Your task to perform on an android device: uninstall "DoorDash - Food Delivery" Image 0: 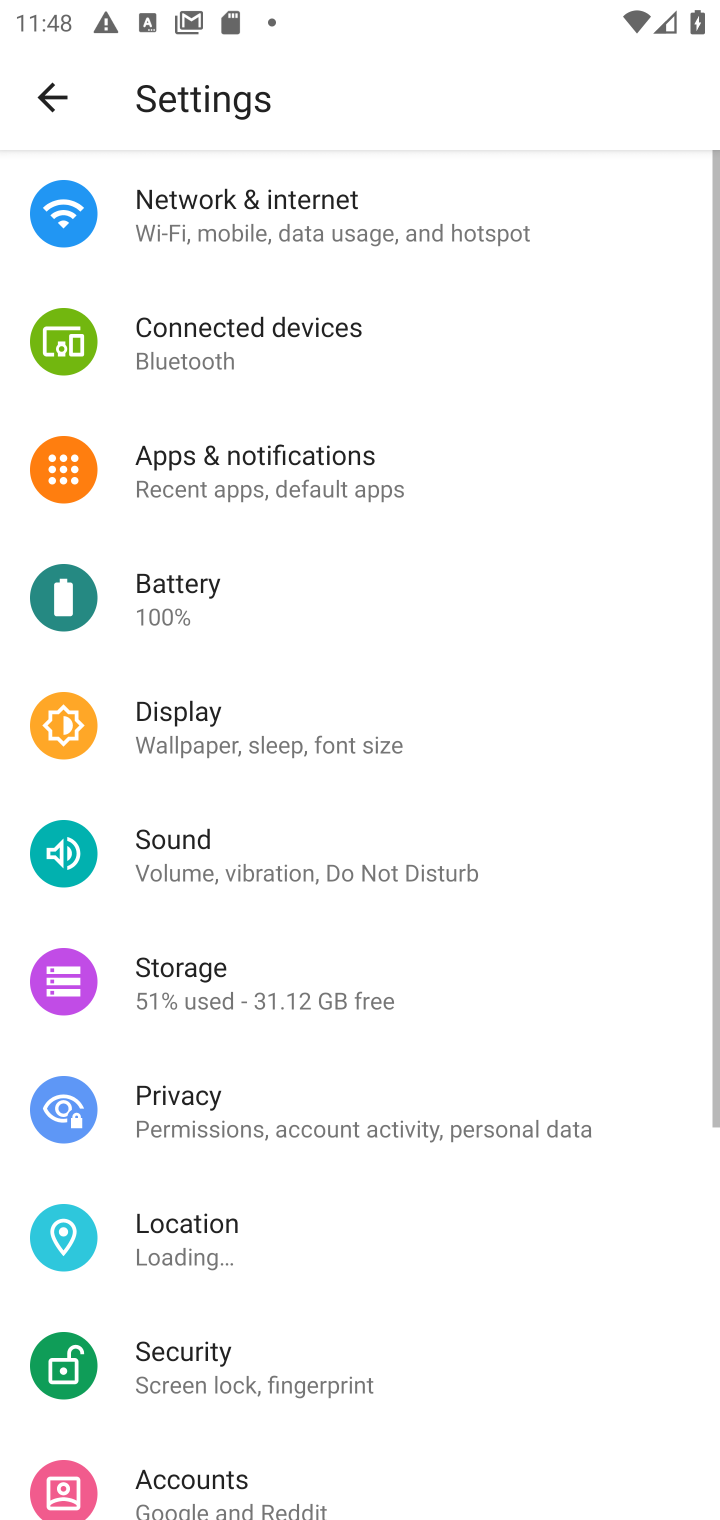
Step 0: click (570, 78)
Your task to perform on an android device: uninstall "DoorDash - Food Delivery" Image 1: 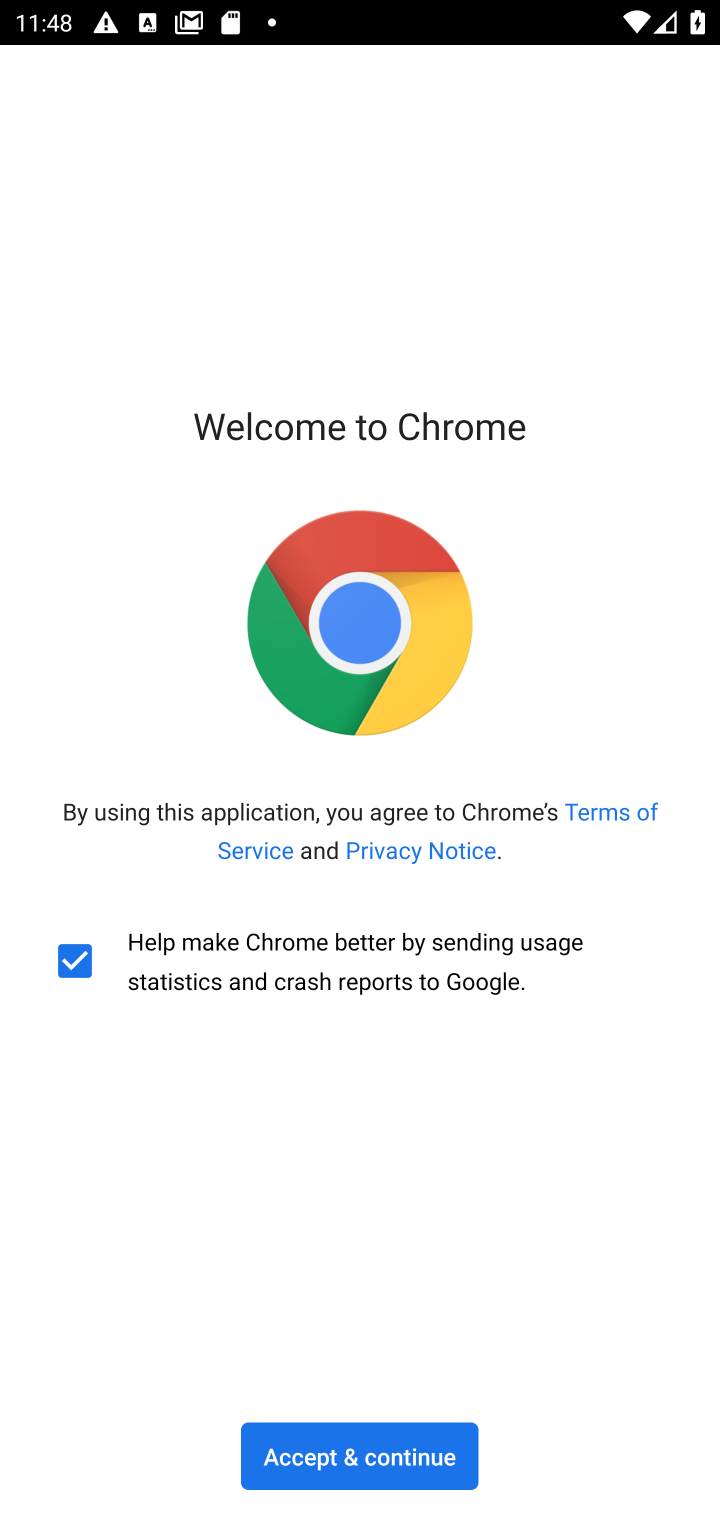
Step 1: press home button
Your task to perform on an android device: uninstall "DoorDash - Food Delivery" Image 2: 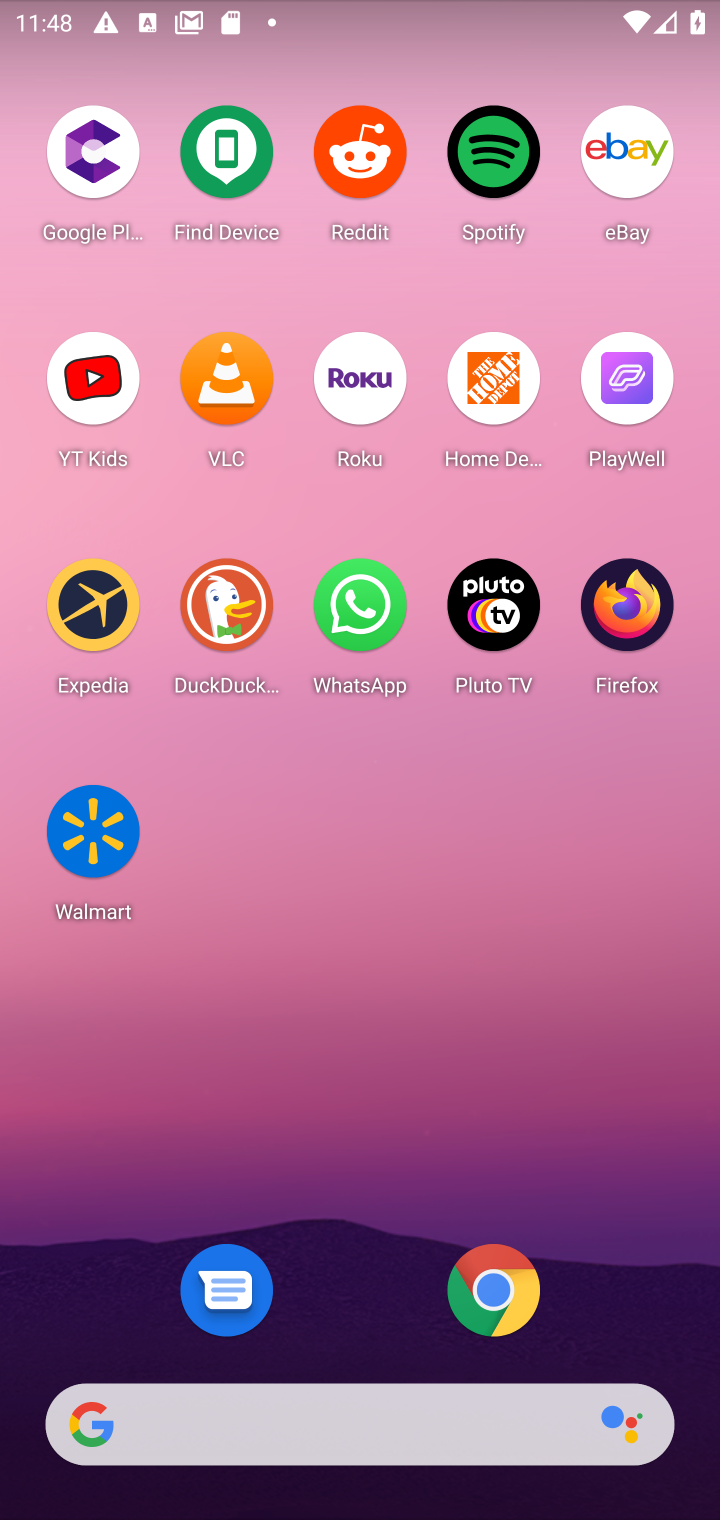
Step 2: drag from (344, 1341) to (315, 94)
Your task to perform on an android device: uninstall "DoorDash - Food Delivery" Image 3: 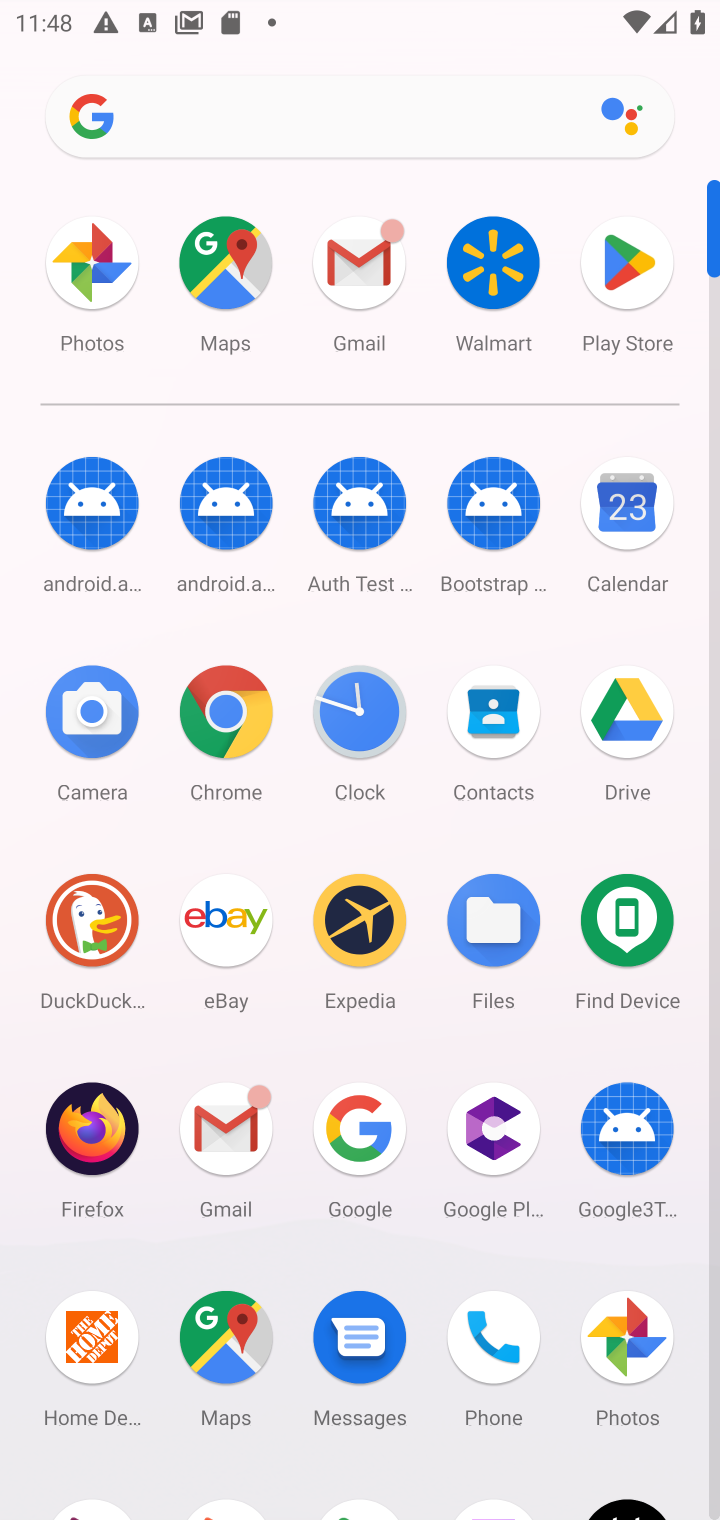
Step 3: click (624, 259)
Your task to perform on an android device: uninstall "DoorDash - Food Delivery" Image 4: 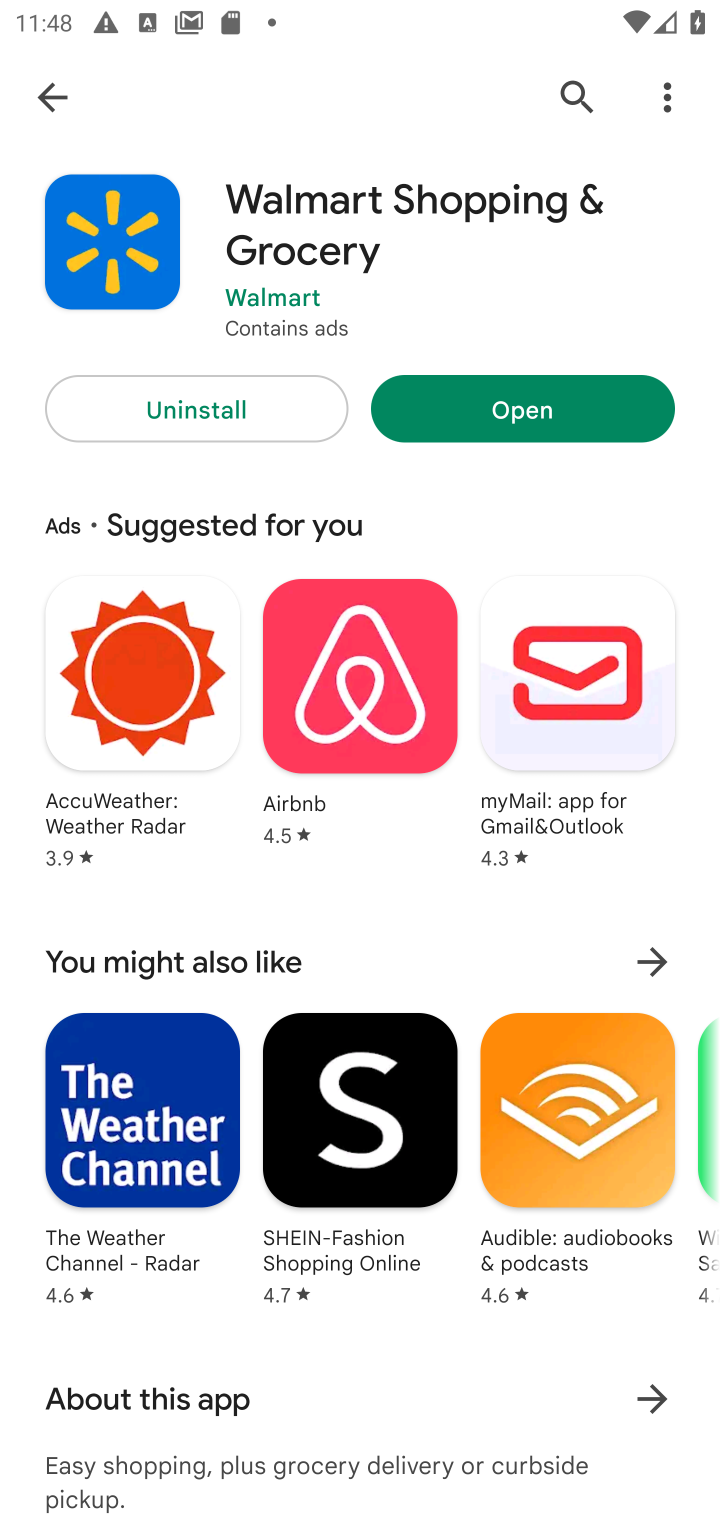
Step 4: click (563, 83)
Your task to perform on an android device: uninstall "DoorDash - Food Delivery" Image 5: 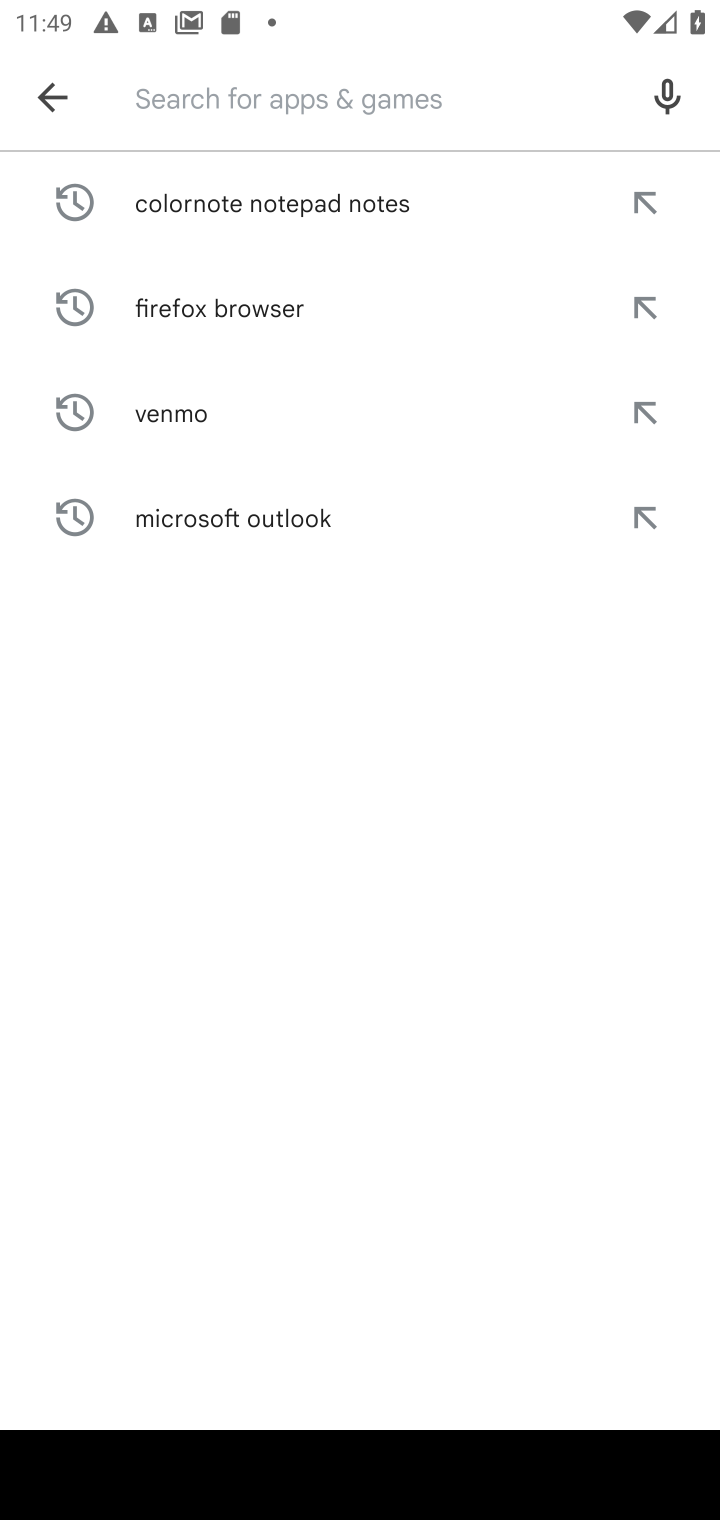
Step 5: type "DoorDash - Food Delivery"
Your task to perform on an android device: uninstall "DoorDash - Food Delivery" Image 6: 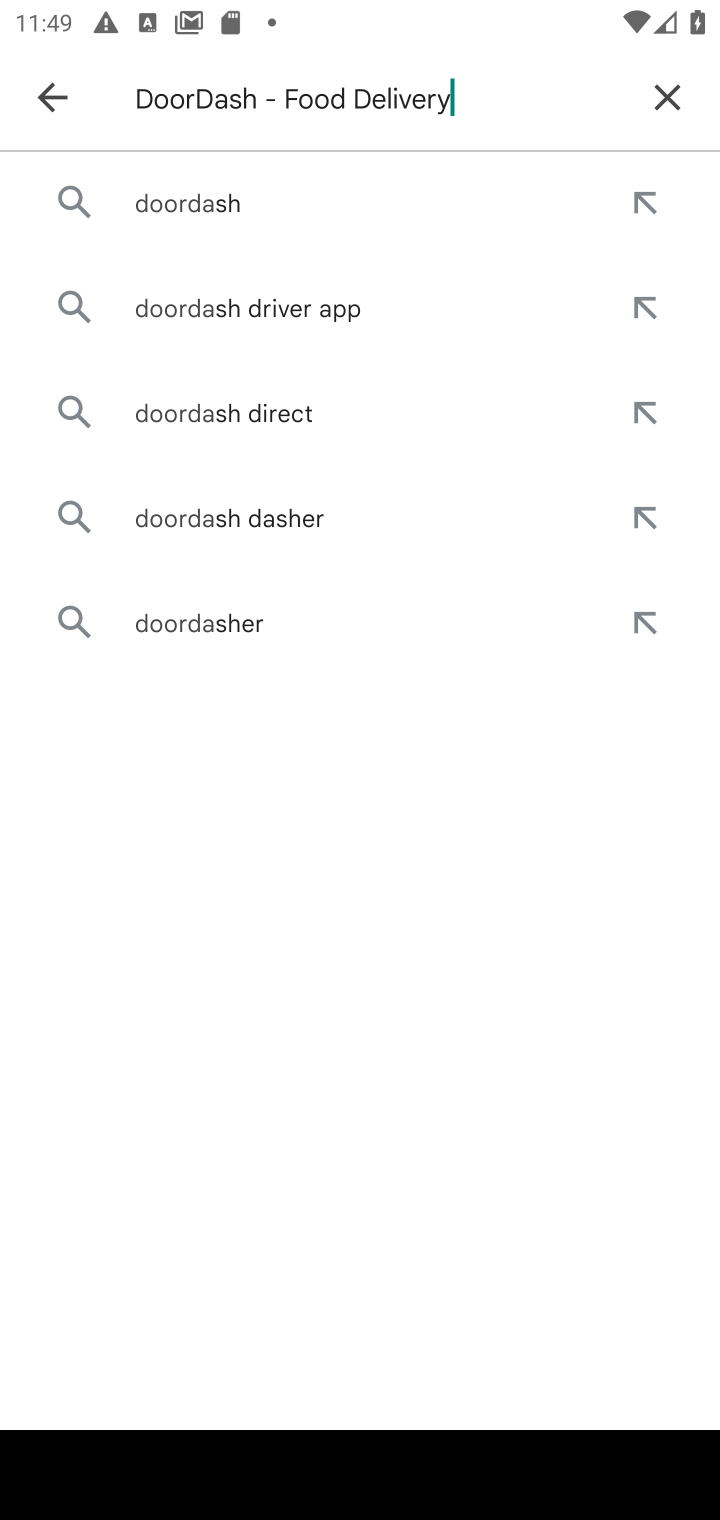
Step 6: type ""
Your task to perform on an android device: uninstall "DoorDash - Food Delivery" Image 7: 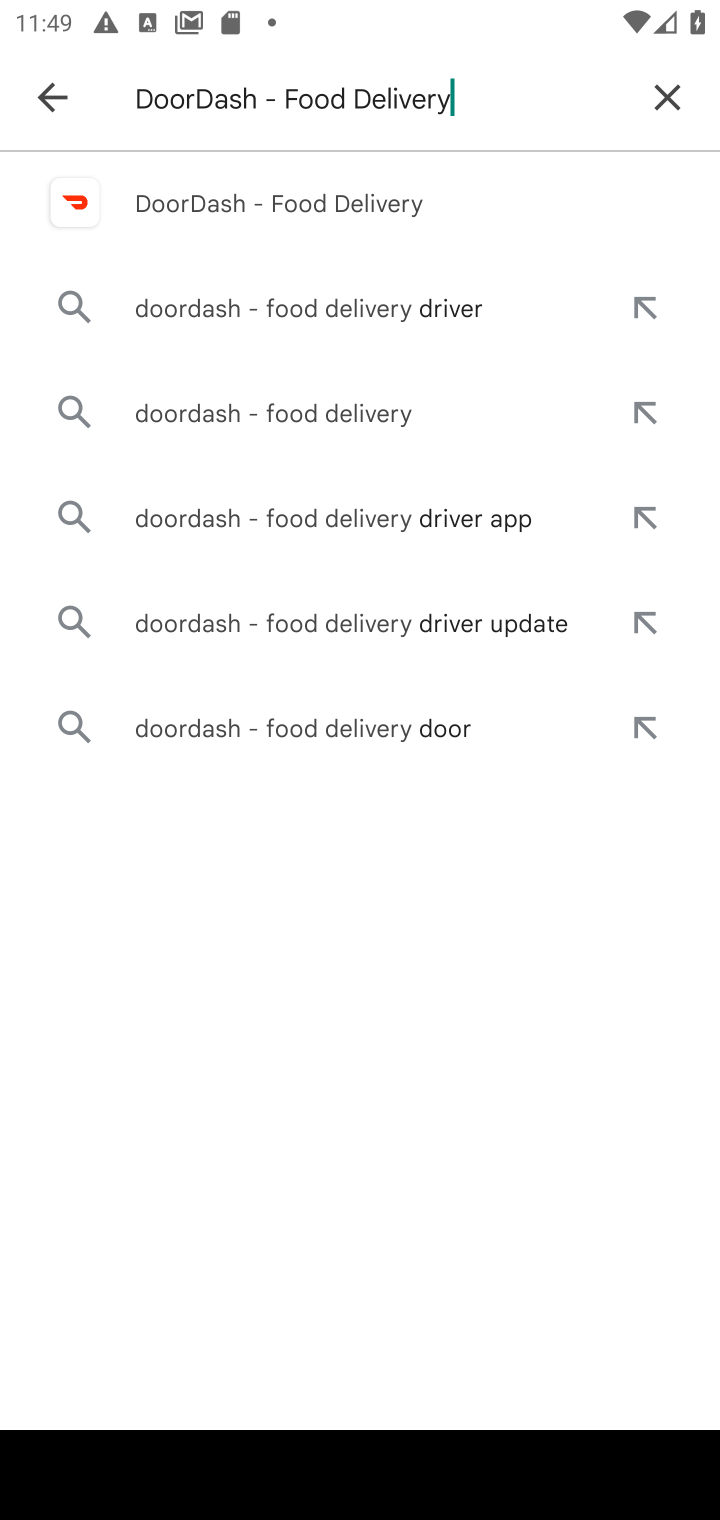
Step 7: click (340, 209)
Your task to perform on an android device: uninstall "DoorDash - Food Delivery" Image 8: 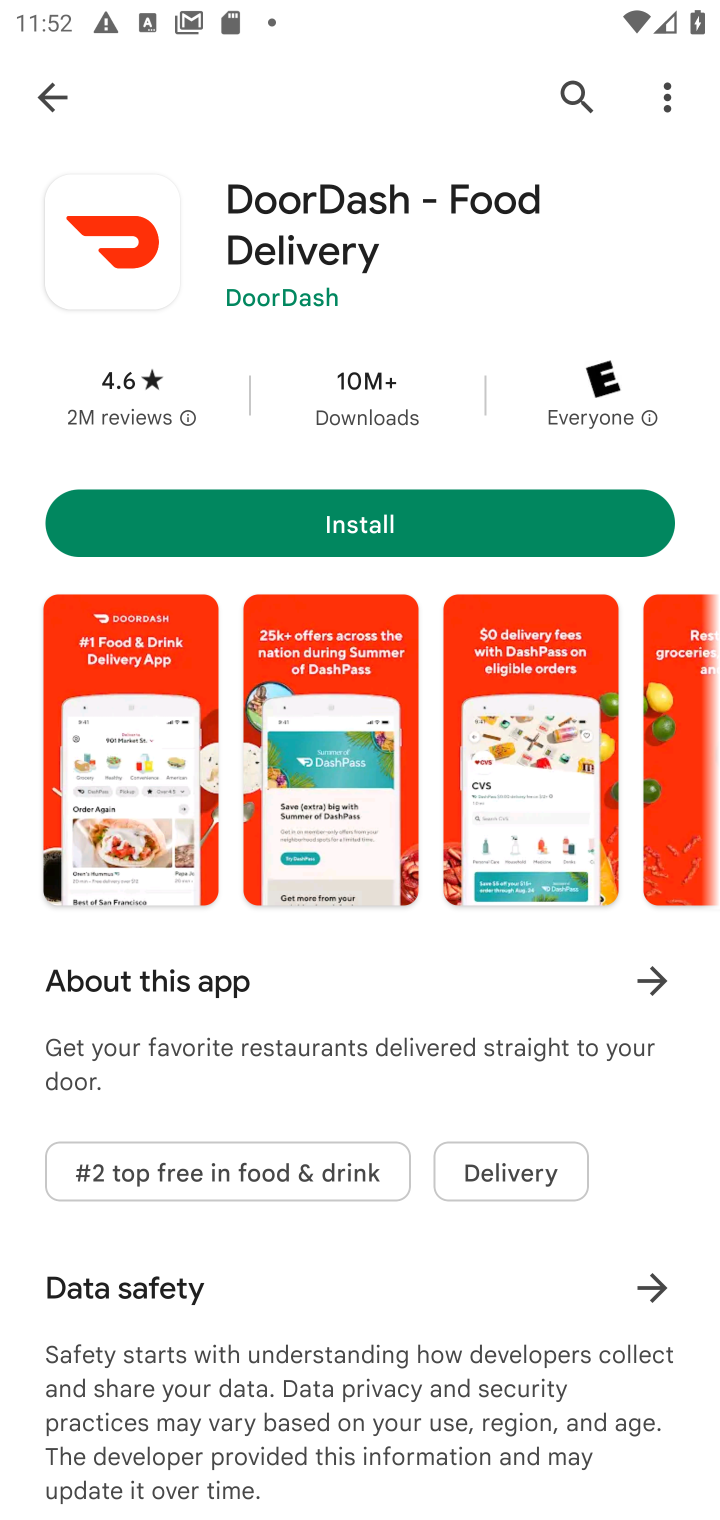
Step 8: task complete